Your task to perform on an android device: turn off picture-in-picture Image 0: 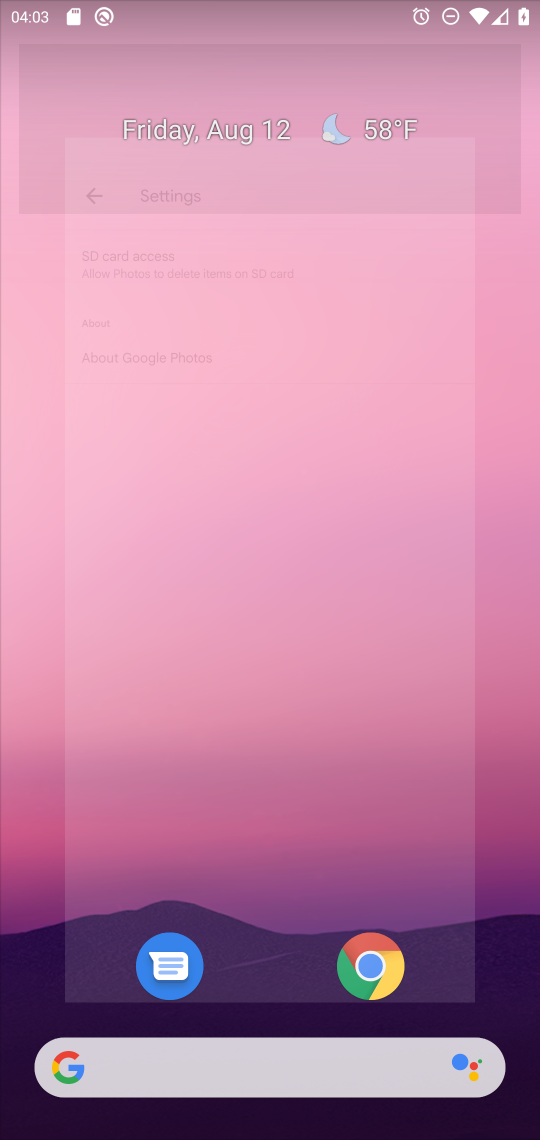
Step 0: drag from (256, 911) to (315, 161)
Your task to perform on an android device: turn off picture-in-picture Image 1: 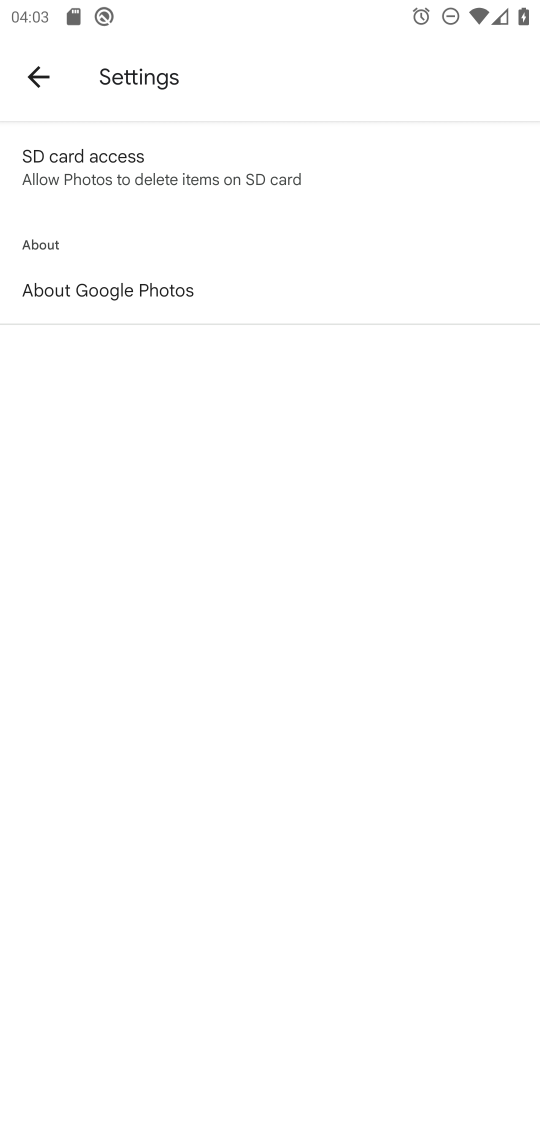
Step 1: press home button
Your task to perform on an android device: turn off picture-in-picture Image 2: 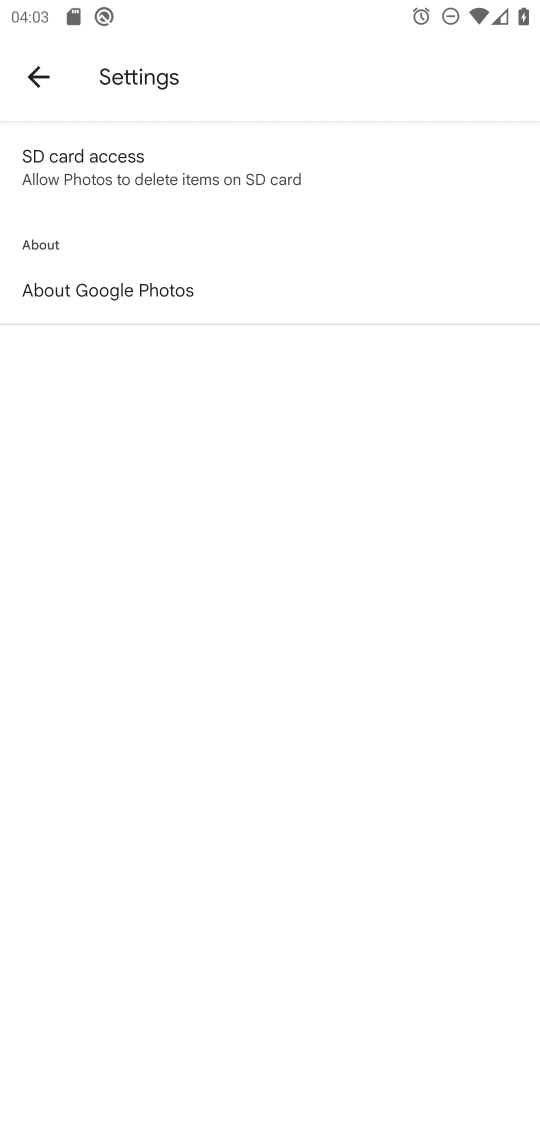
Step 2: press home button
Your task to perform on an android device: turn off picture-in-picture Image 3: 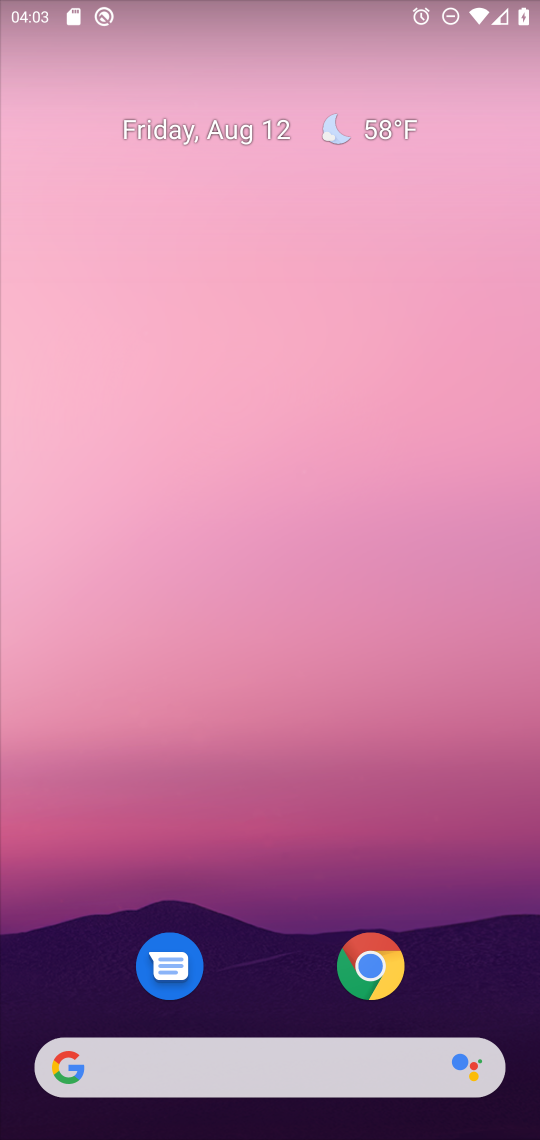
Step 3: click (369, 966)
Your task to perform on an android device: turn off picture-in-picture Image 4: 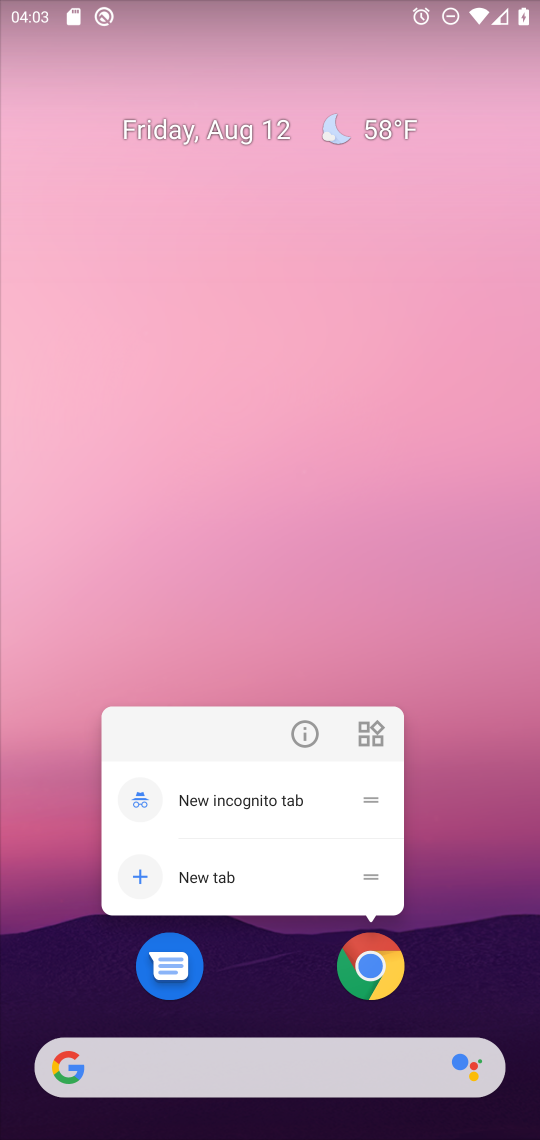
Step 4: click (307, 739)
Your task to perform on an android device: turn off picture-in-picture Image 5: 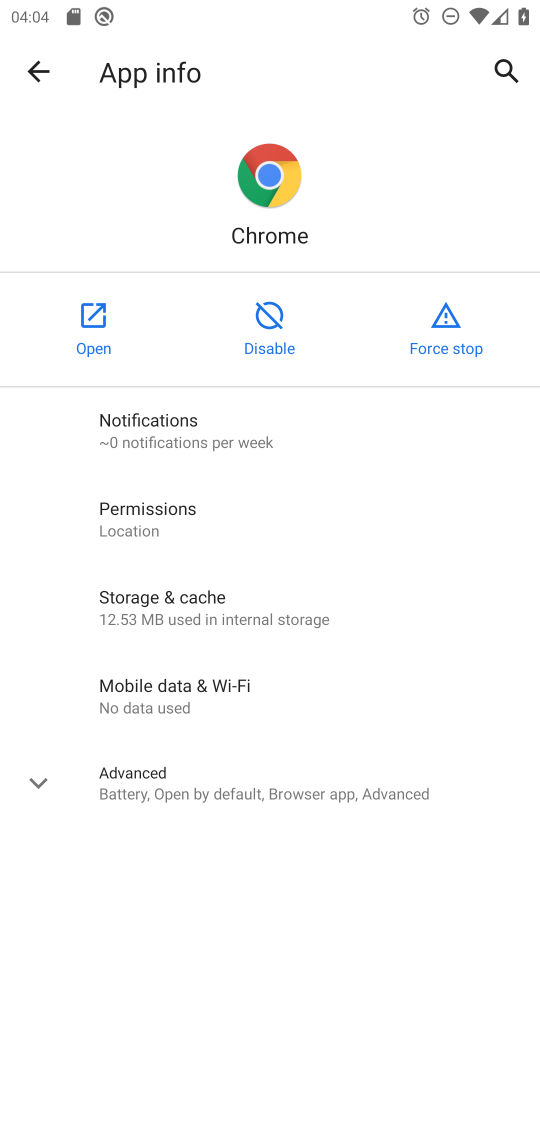
Step 5: click (127, 778)
Your task to perform on an android device: turn off picture-in-picture Image 6: 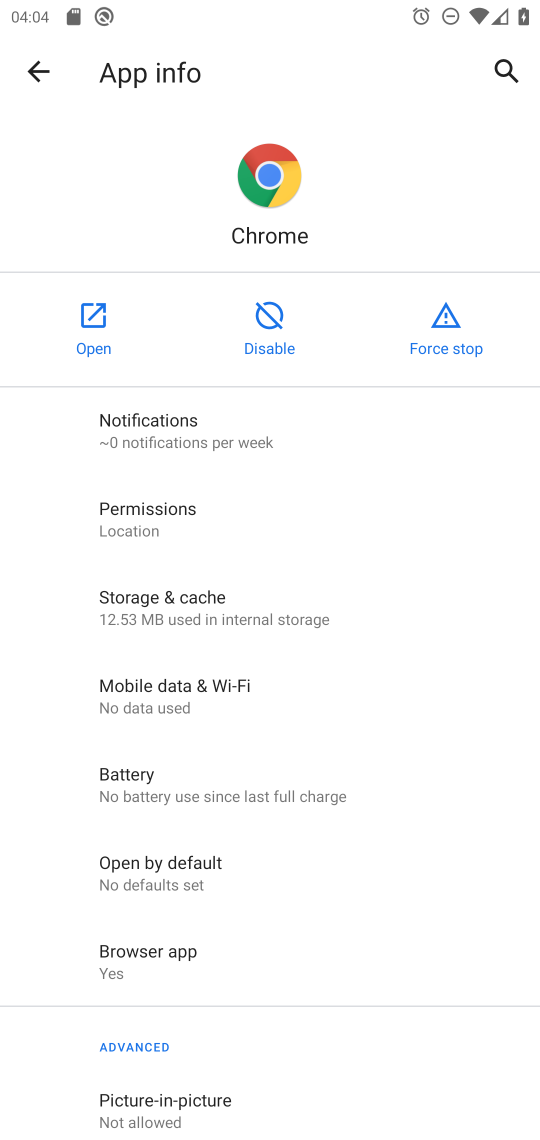
Step 6: click (196, 1095)
Your task to perform on an android device: turn off picture-in-picture Image 7: 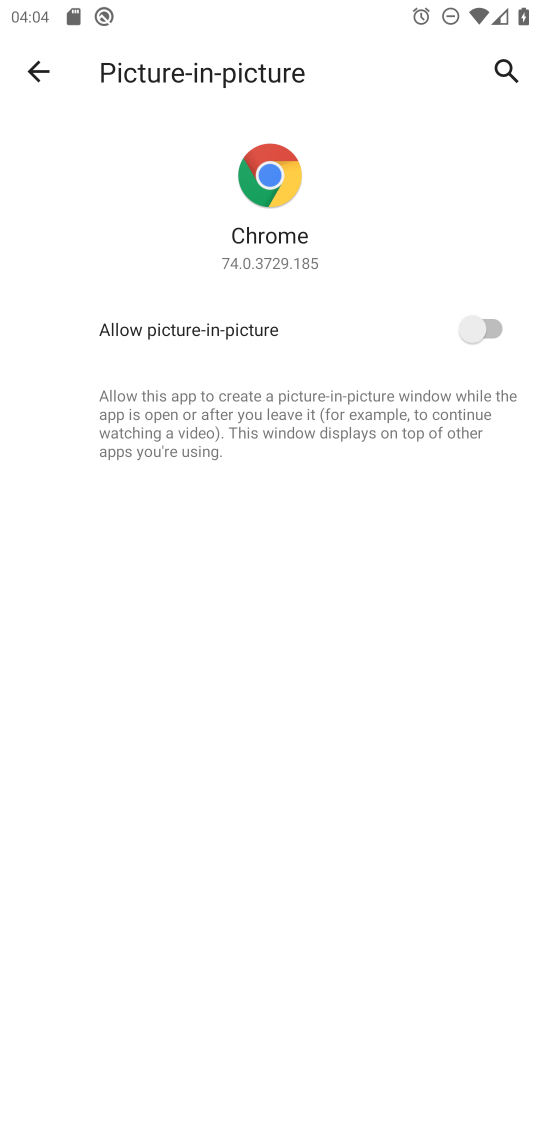
Step 7: task complete